Your task to perform on an android device: move a message to another label in the gmail app Image 0: 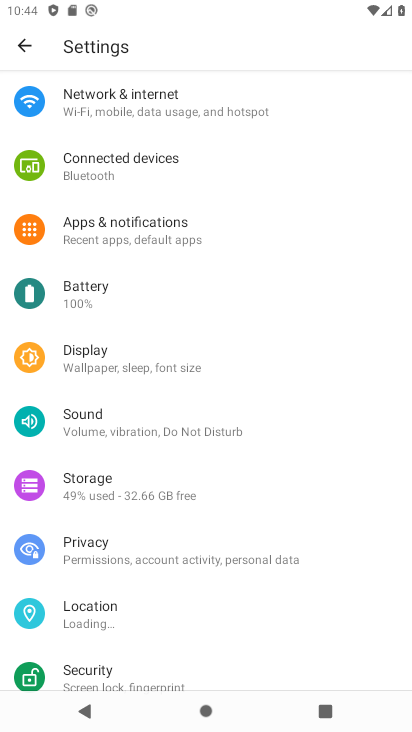
Step 0: press home button
Your task to perform on an android device: move a message to another label in the gmail app Image 1: 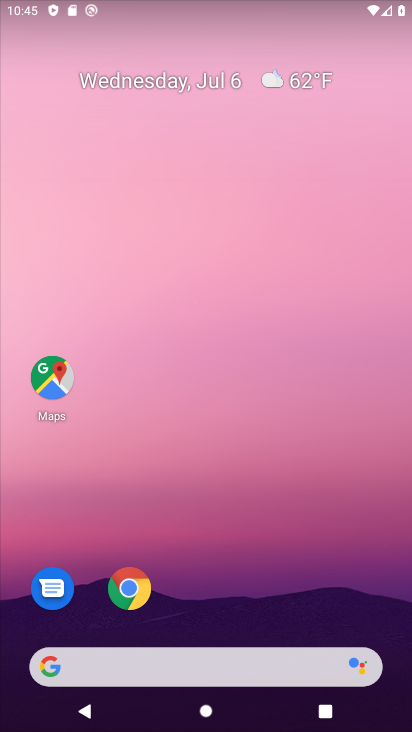
Step 1: drag from (373, 620) to (358, 116)
Your task to perform on an android device: move a message to another label in the gmail app Image 2: 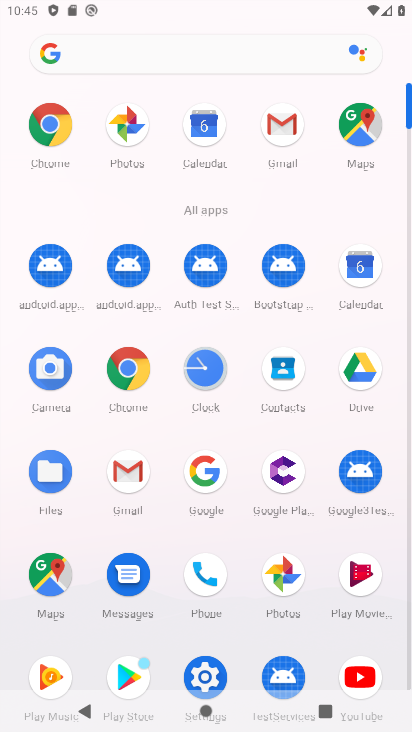
Step 2: click (126, 471)
Your task to perform on an android device: move a message to another label in the gmail app Image 3: 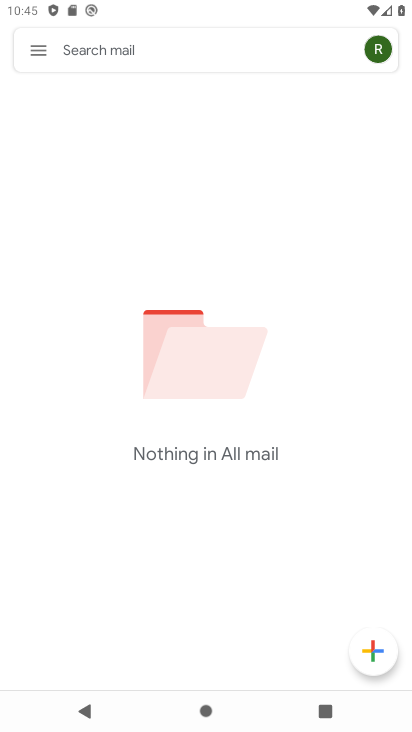
Step 3: click (41, 53)
Your task to perform on an android device: move a message to another label in the gmail app Image 4: 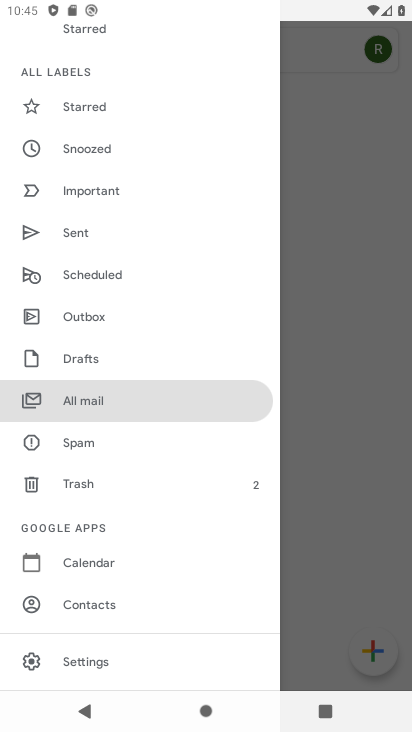
Step 4: click (97, 398)
Your task to perform on an android device: move a message to another label in the gmail app Image 5: 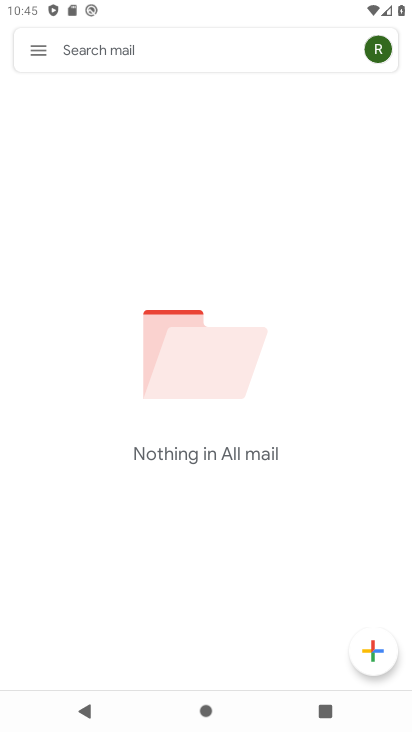
Step 5: task complete